Your task to perform on an android device: Show me the alarms in the clock app Image 0: 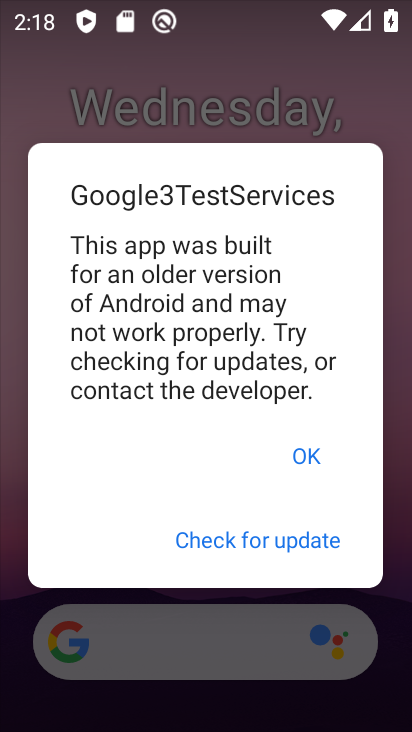
Step 0: press home button
Your task to perform on an android device: Show me the alarms in the clock app Image 1: 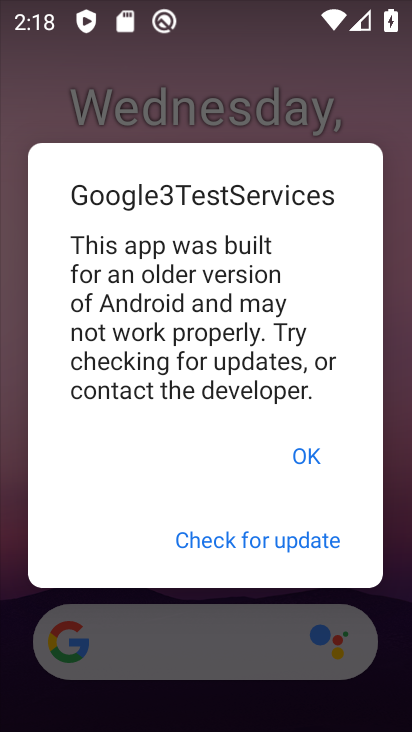
Step 1: press home button
Your task to perform on an android device: Show me the alarms in the clock app Image 2: 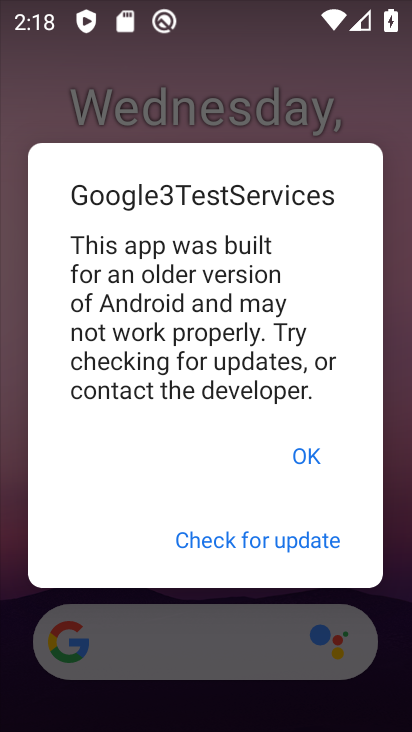
Step 2: press home button
Your task to perform on an android device: Show me the alarms in the clock app Image 3: 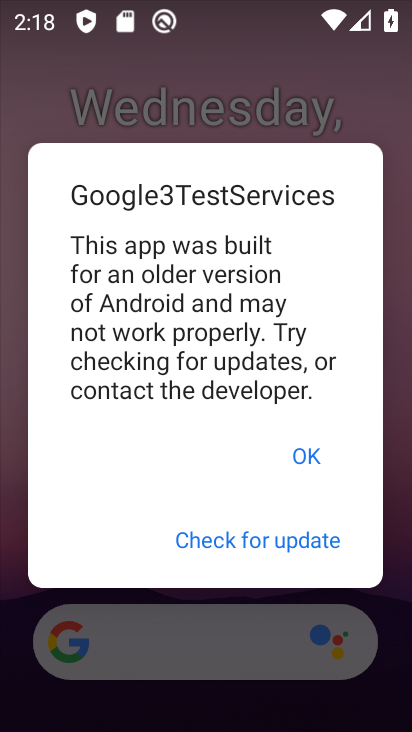
Step 3: press home button
Your task to perform on an android device: Show me the alarms in the clock app Image 4: 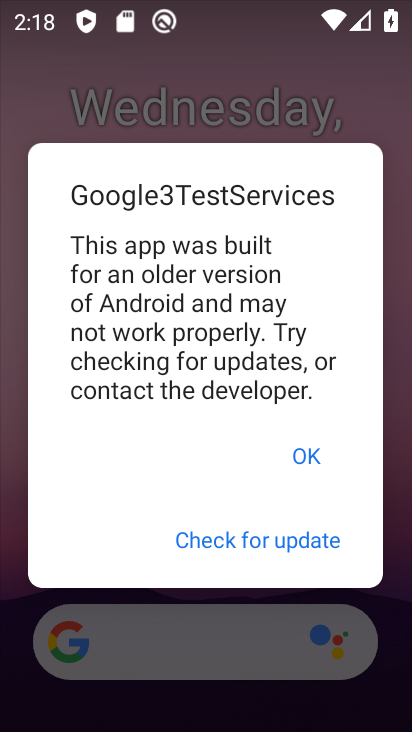
Step 4: press home button
Your task to perform on an android device: Show me the alarms in the clock app Image 5: 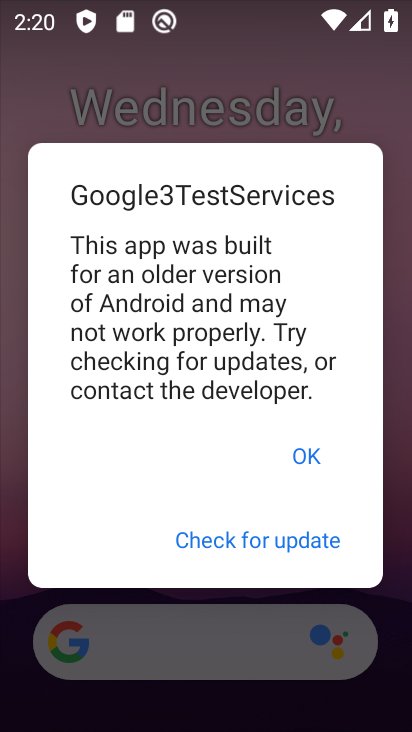
Step 5: press home button
Your task to perform on an android device: Show me the alarms in the clock app Image 6: 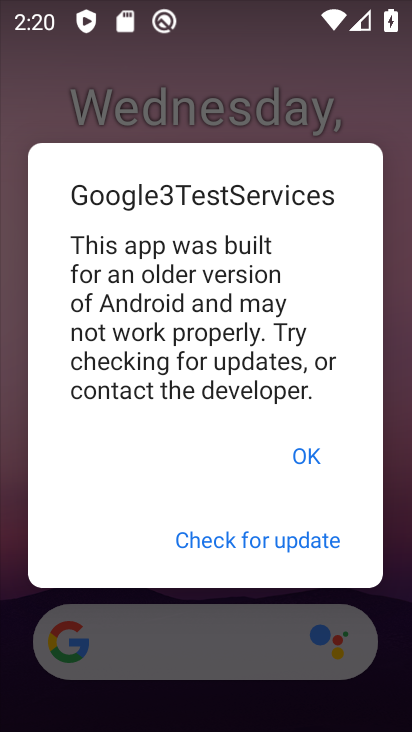
Step 6: press home button
Your task to perform on an android device: Show me the alarms in the clock app Image 7: 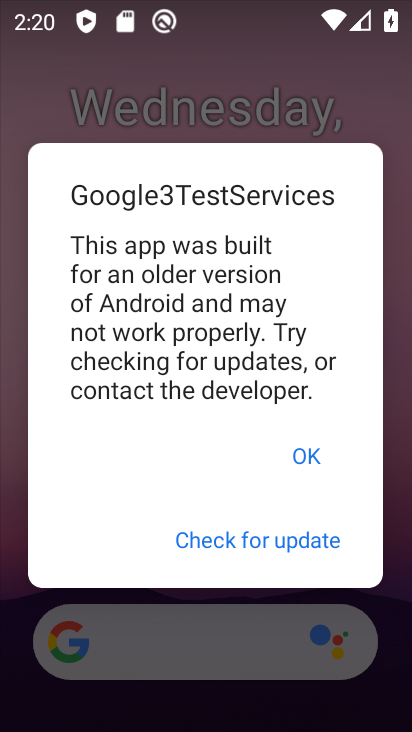
Step 7: press home button
Your task to perform on an android device: Show me the alarms in the clock app Image 8: 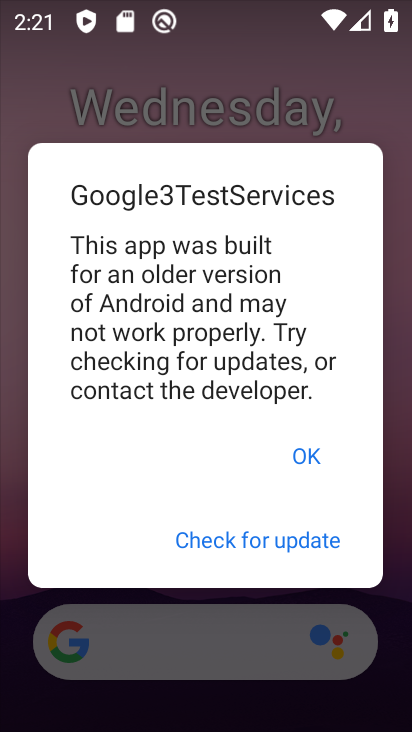
Step 8: click (311, 455)
Your task to perform on an android device: Show me the alarms in the clock app Image 9: 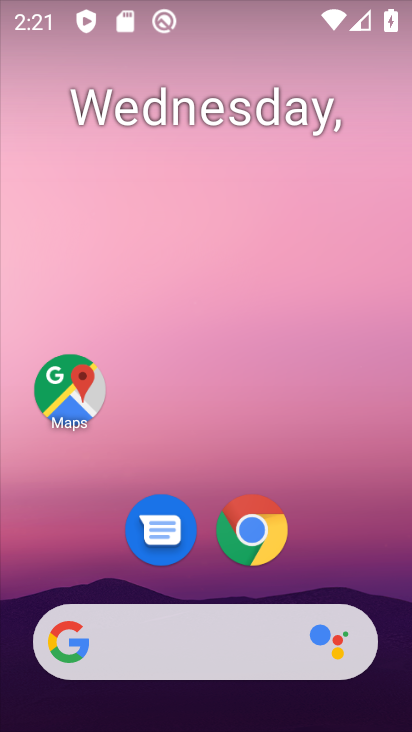
Step 9: drag from (217, 594) to (245, 13)
Your task to perform on an android device: Show me the alarms in the clock app Image 10: 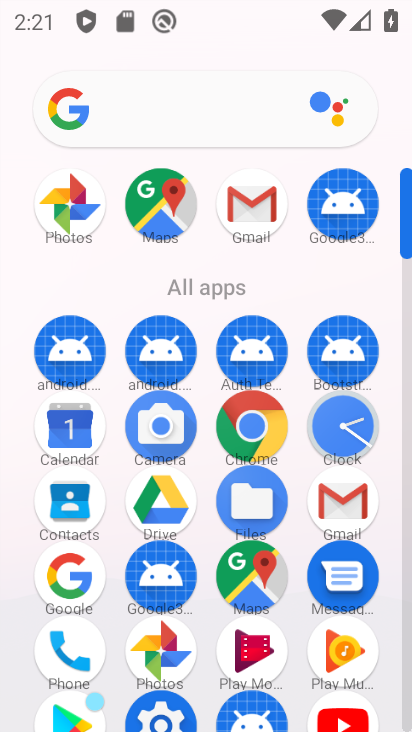
Step 10: click (361, 441)
Your task to perform on an android device: Show me the alarms in the clock app Image 11: 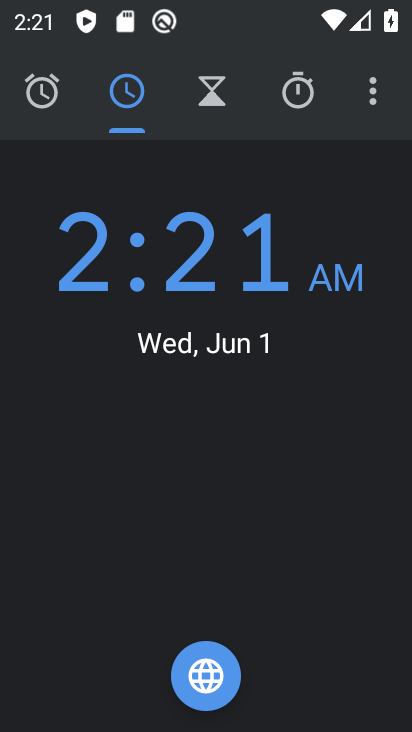
Step 11: click (62, 115)
Your task to perform on an android device: Show me the alarms in the clock app Image 12: 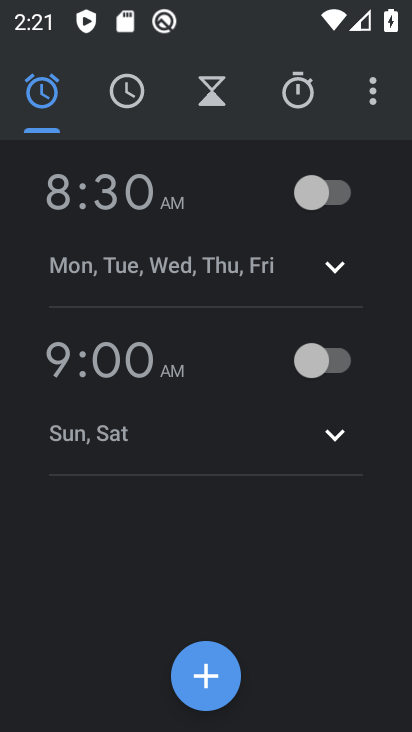
Step 12: task complete